Your task to perform on an android device: toggle wifi Image 0: 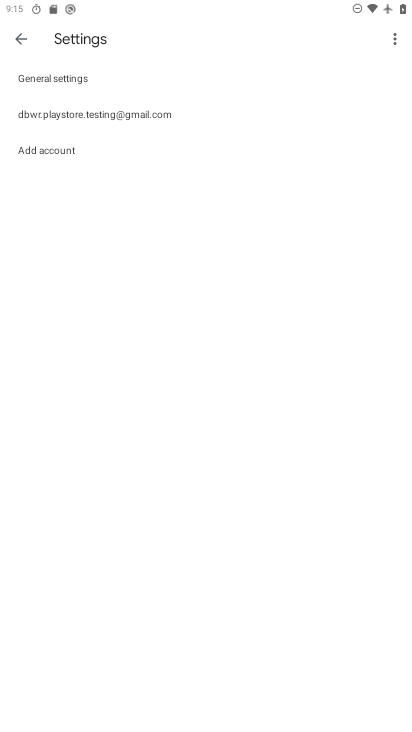
Step 0: press home button
Your task to perform on an android device: toggle wifi Image 1: 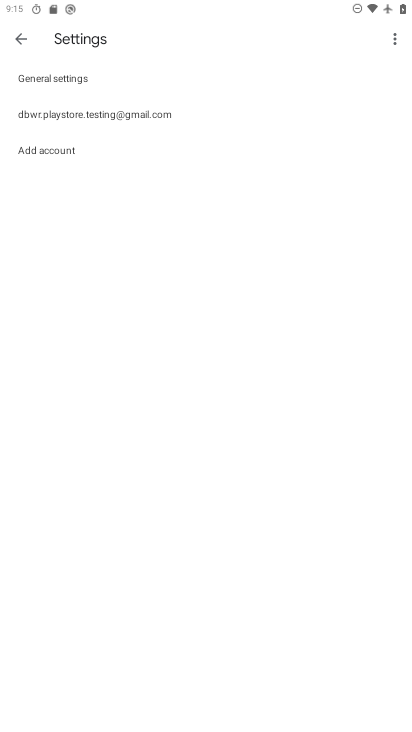
Step 1: press home button
Your task to perform on an android device: toggle wifi Image 2: 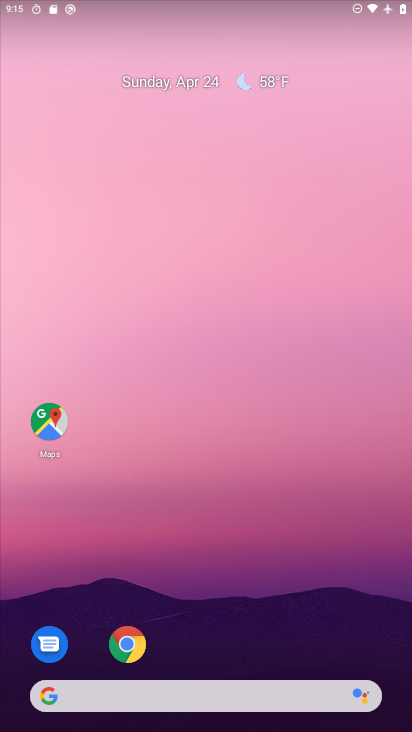
Step 2: drag from (218, 651) to (230, 0)
Your task to perform on an android device: toggle wifi Image 3: 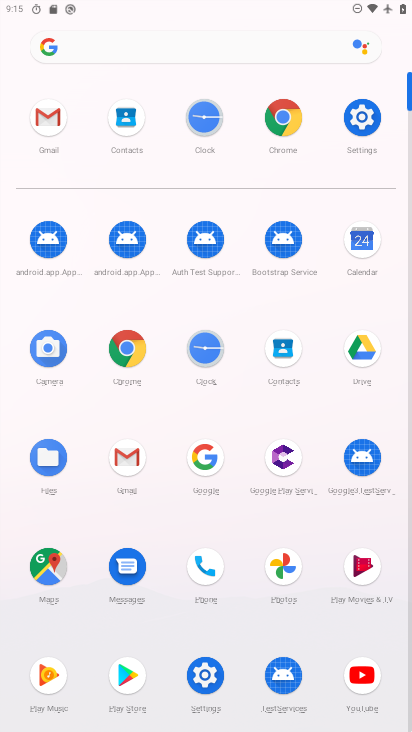
Step 3: click (361, 115)
Your task to perform on an android device: toggle wifi Image 4: 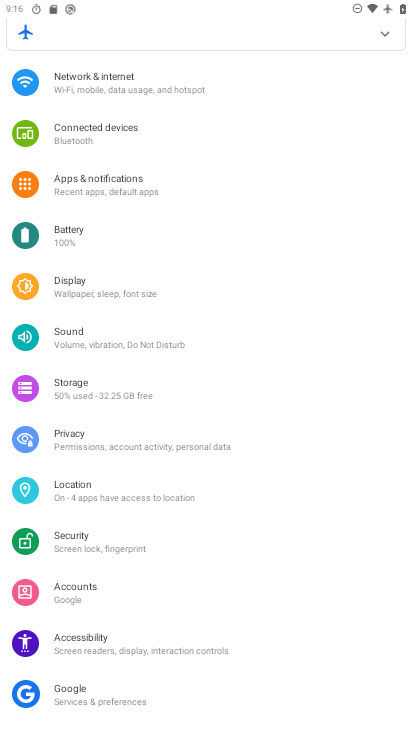
Step 4: click (148, 72)
Your task to perform on an android device: toggle wifi Image 5: 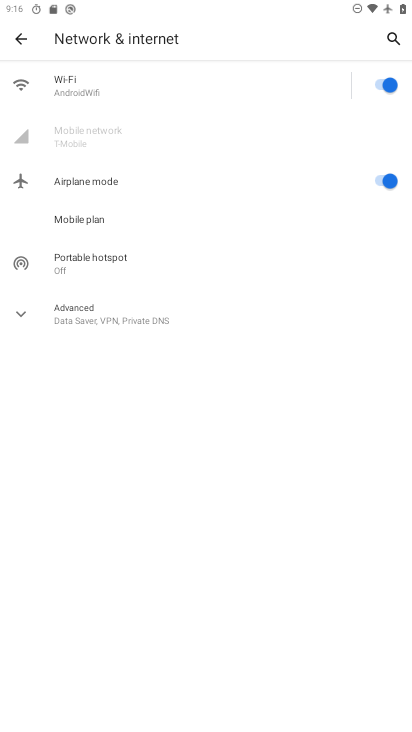
Step 5: click (120, 80)
Your task to perform on an android device: toggle wifi Image 6: 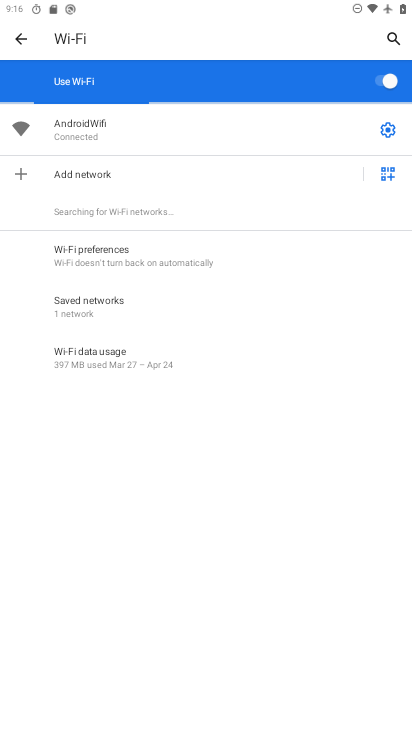
Step 6: task complete